Your task to perform on an android device: Do I have any events this weekend? Image 0: 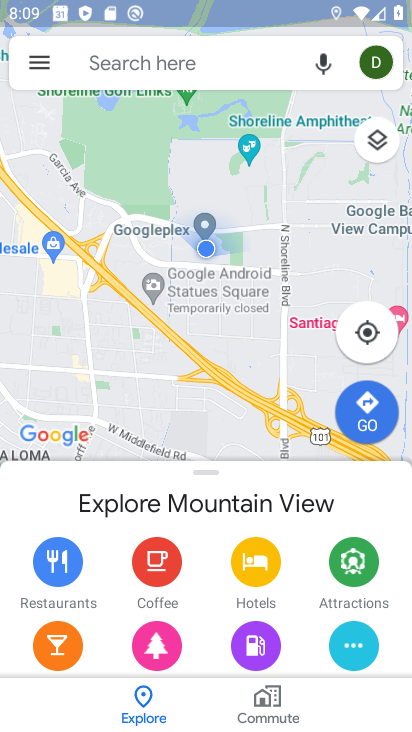
Step 0: press home button
Your task to perform on an android device: Do I have any events this weekend? Image 1: 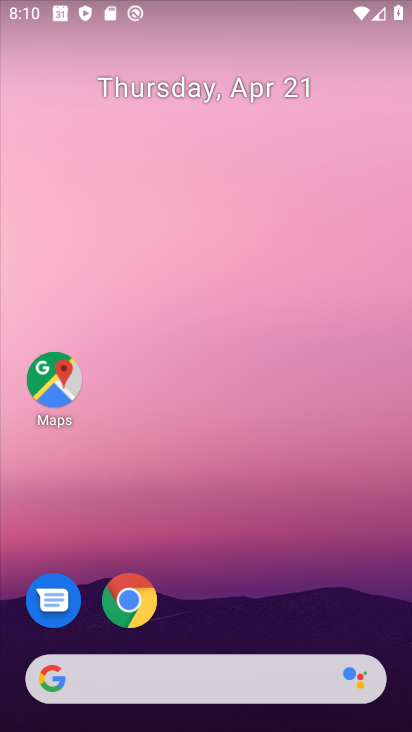
Step 1: drag from (280, 281) to (363, 129)
Your task to perform on an android device: Do I have any events this weekend? Image 2: 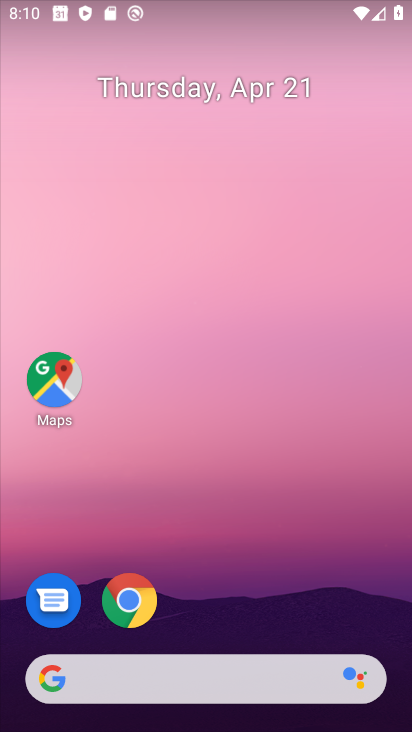
Step 2: drag from (45, 602) to (253, 276)
Your task to perform on an android device: Do I have any events this weekend? Image 3: 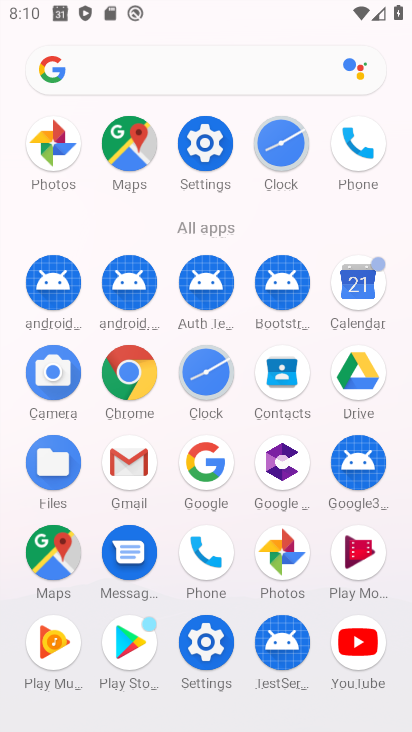
Step 3: click (359, 299)
Your task to perform on an android device: Do I have any events this weekend? Image 4: 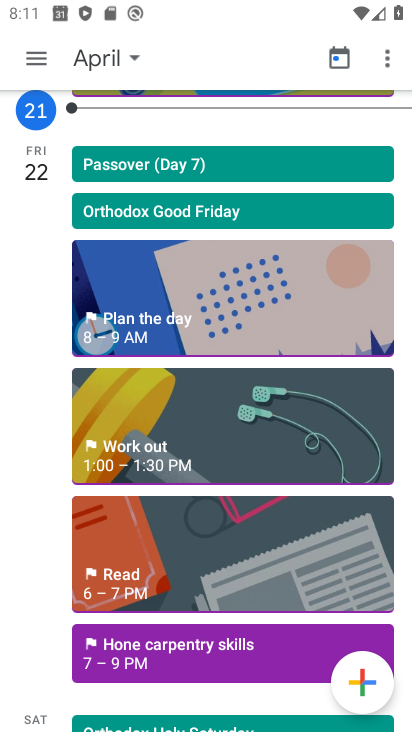
Step 4: click (105, 51)
Your task to perform on an android device: Do I have any events this weekend? Image 5: 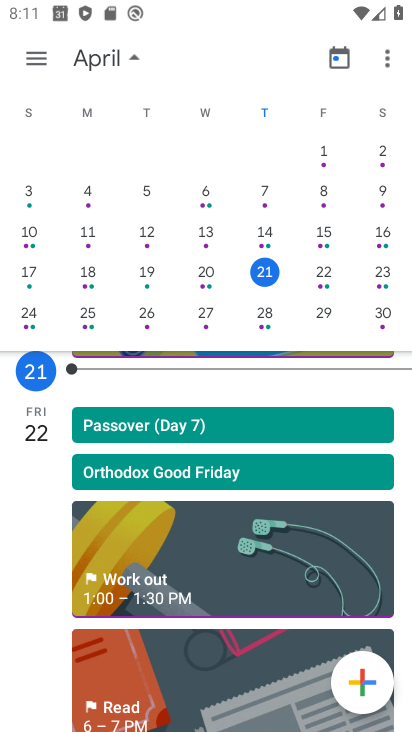
Step 5: click (382, 279)
Your task to perform on an android device: Do I have any events this weekend? Image 6: 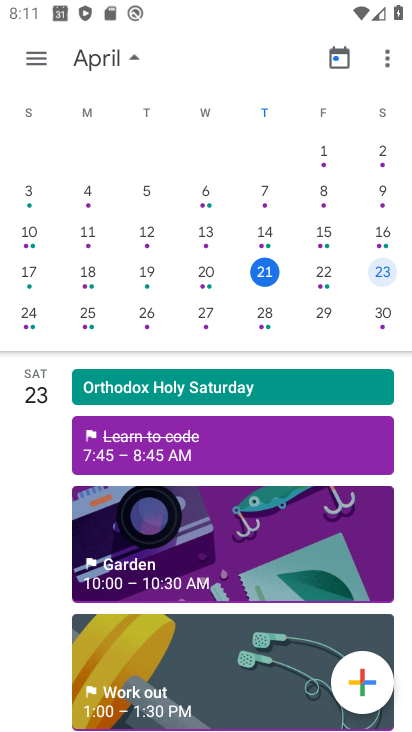
Step 6: task complete